Your task to perform on an android device: Show me productivity apps on the Play Store Image 0: 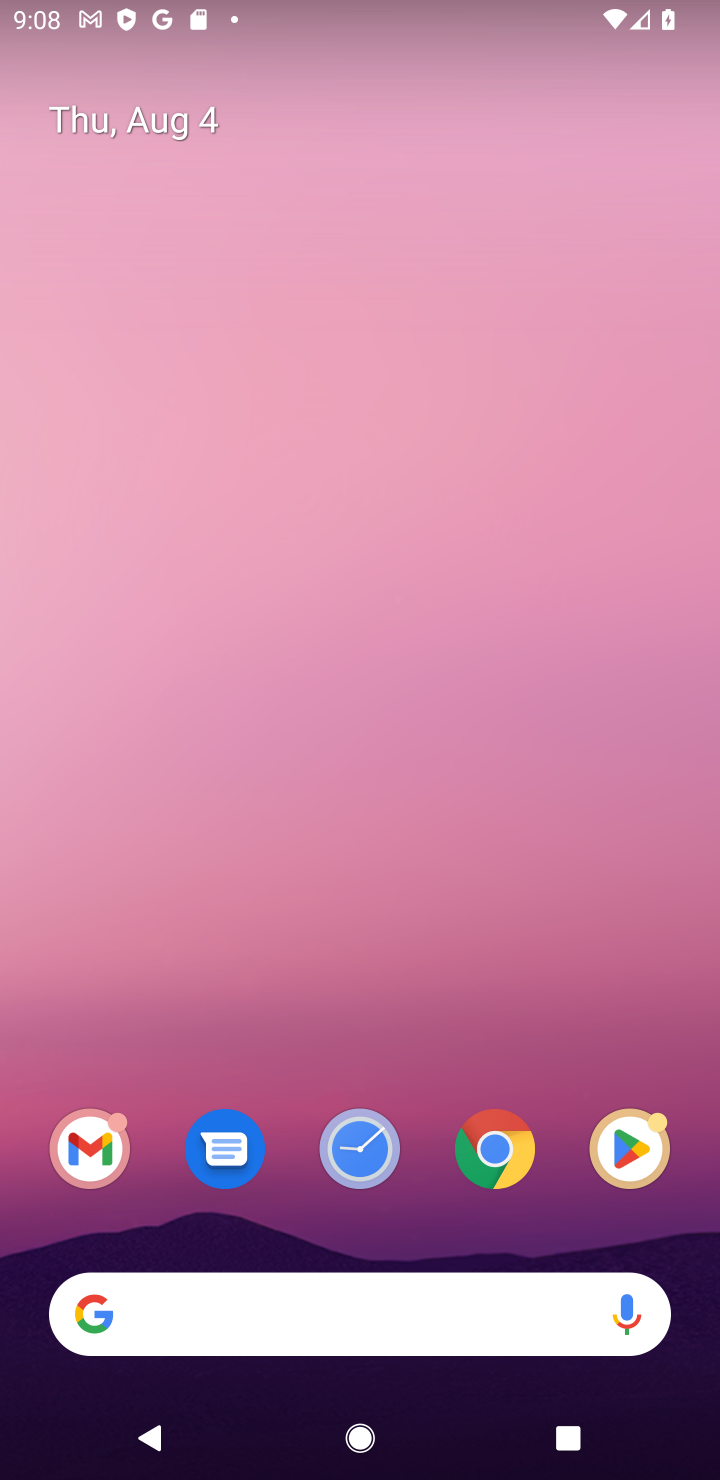
Step 0: drag from (690, 1250) to (624, 703)
Your task to perform on an android device: Show me productivity apps on the Play Store Image 1: 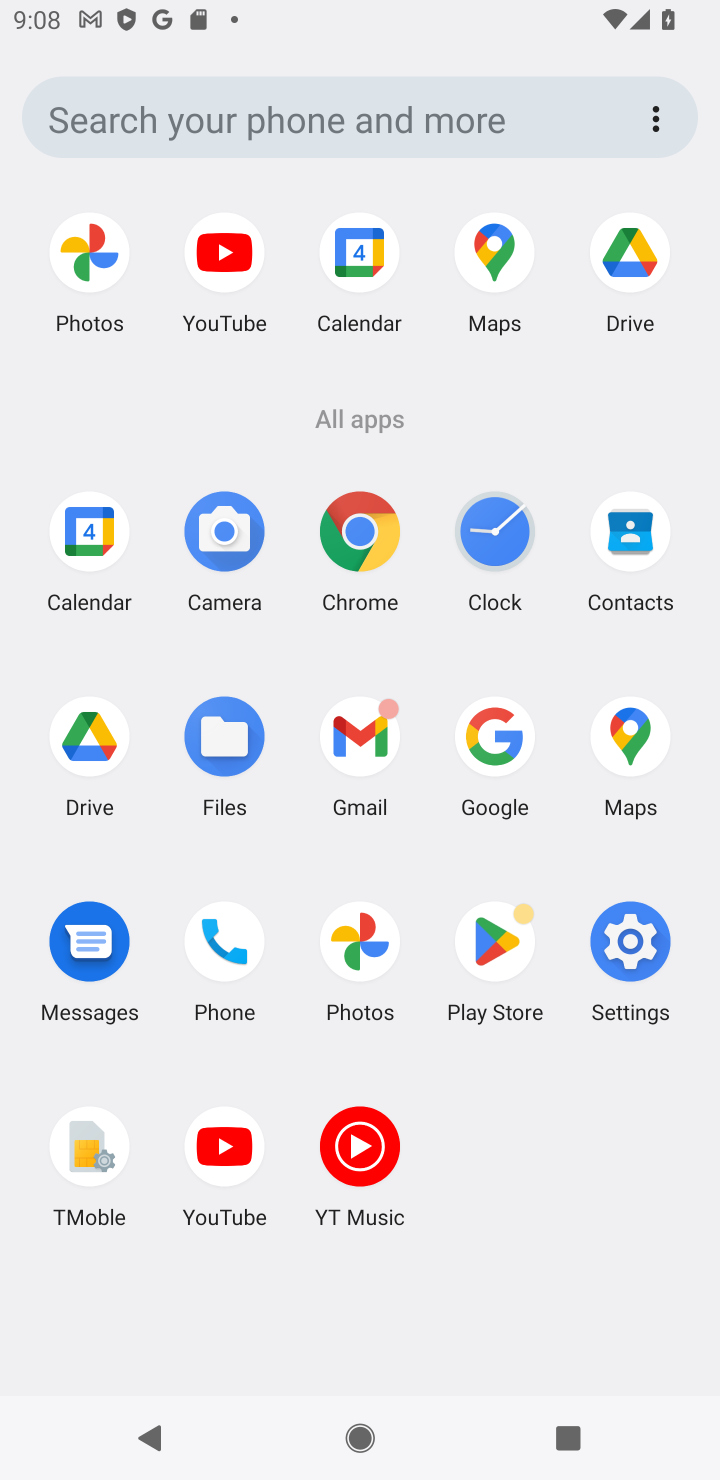
Step 1: click (500, 938)
Your task to perform on an android device: Show me productivity apps on the Play Store Image 2: 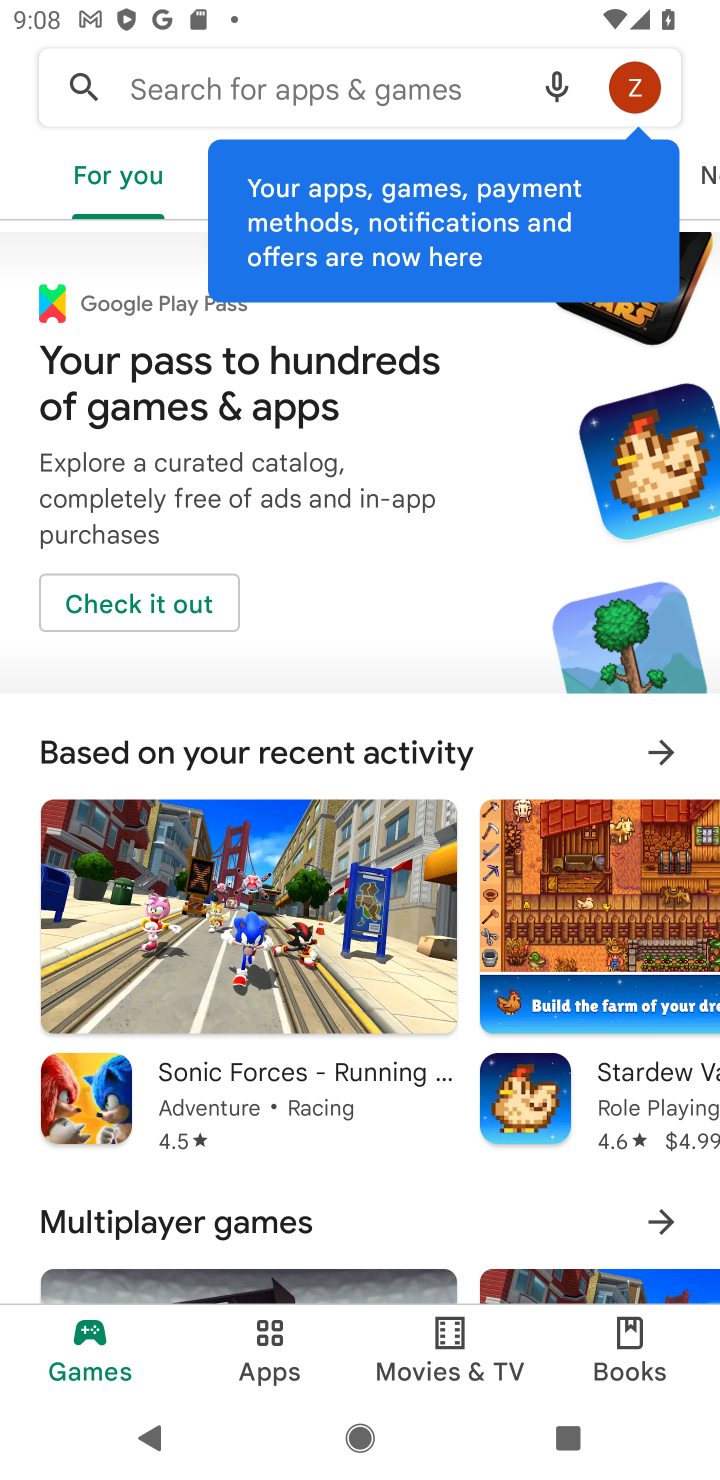
Step 2: click (269, 1337)
Your task to perform on an android device: Show me productivity apps on the Play Store Image 3: 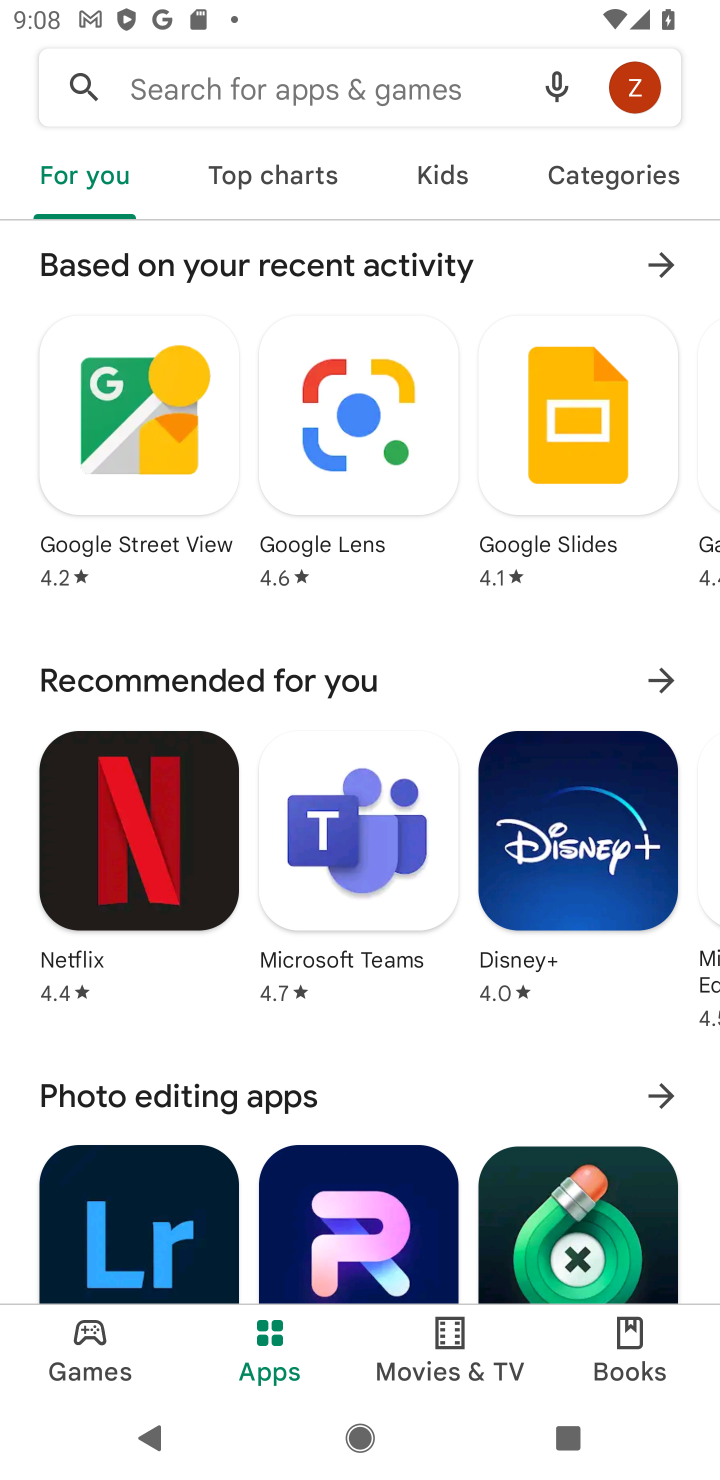
Step 3: click (607, 165)
Your task to perform on an android device: Show me productivity apps on the Play Store Image 4: 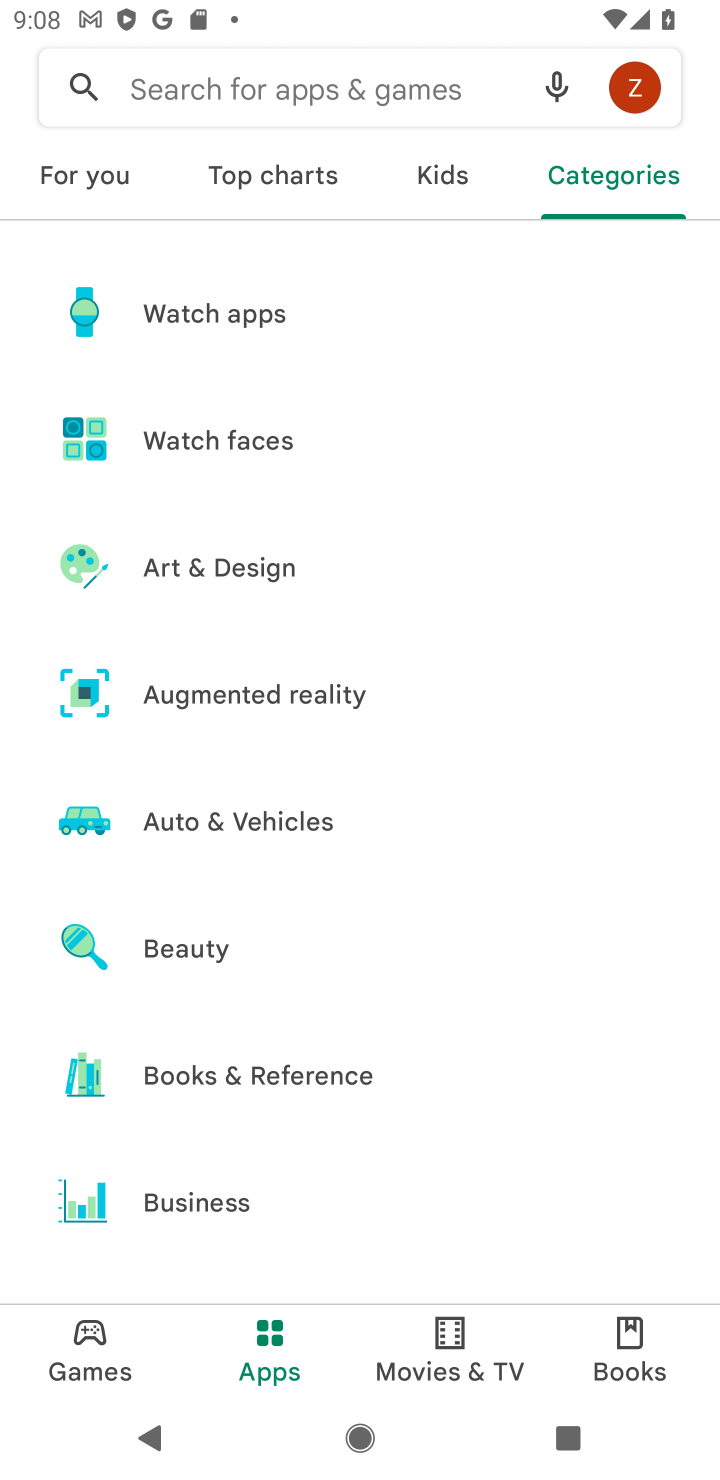
Step 4: drag from (400, 1183) to (404, 433)
Your task to perform on an android device: Show me productivity apps on the Play Store Image 5: 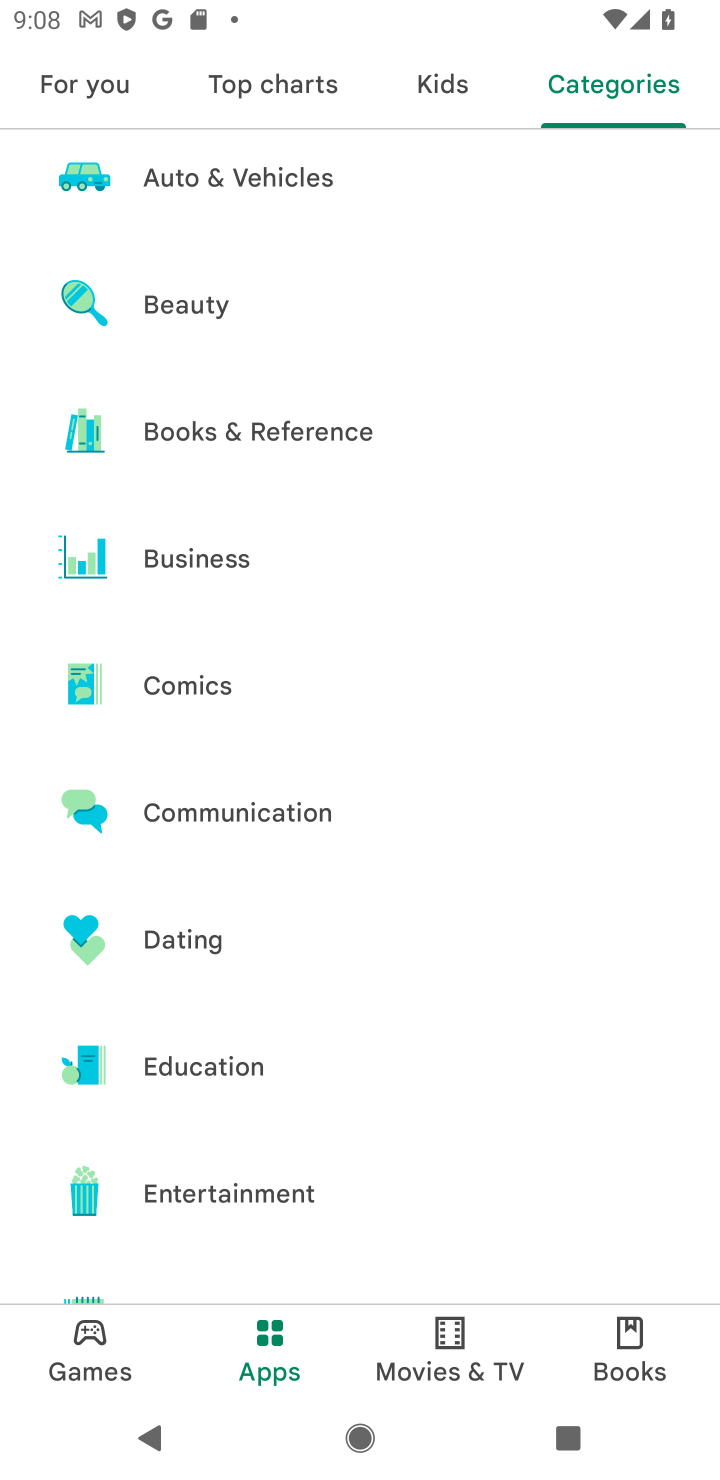
Step 5: drag from (465, 1246) to (473, 398)
Your task to perform on an android device: Show me productivity apps on the Play Store Image 6: 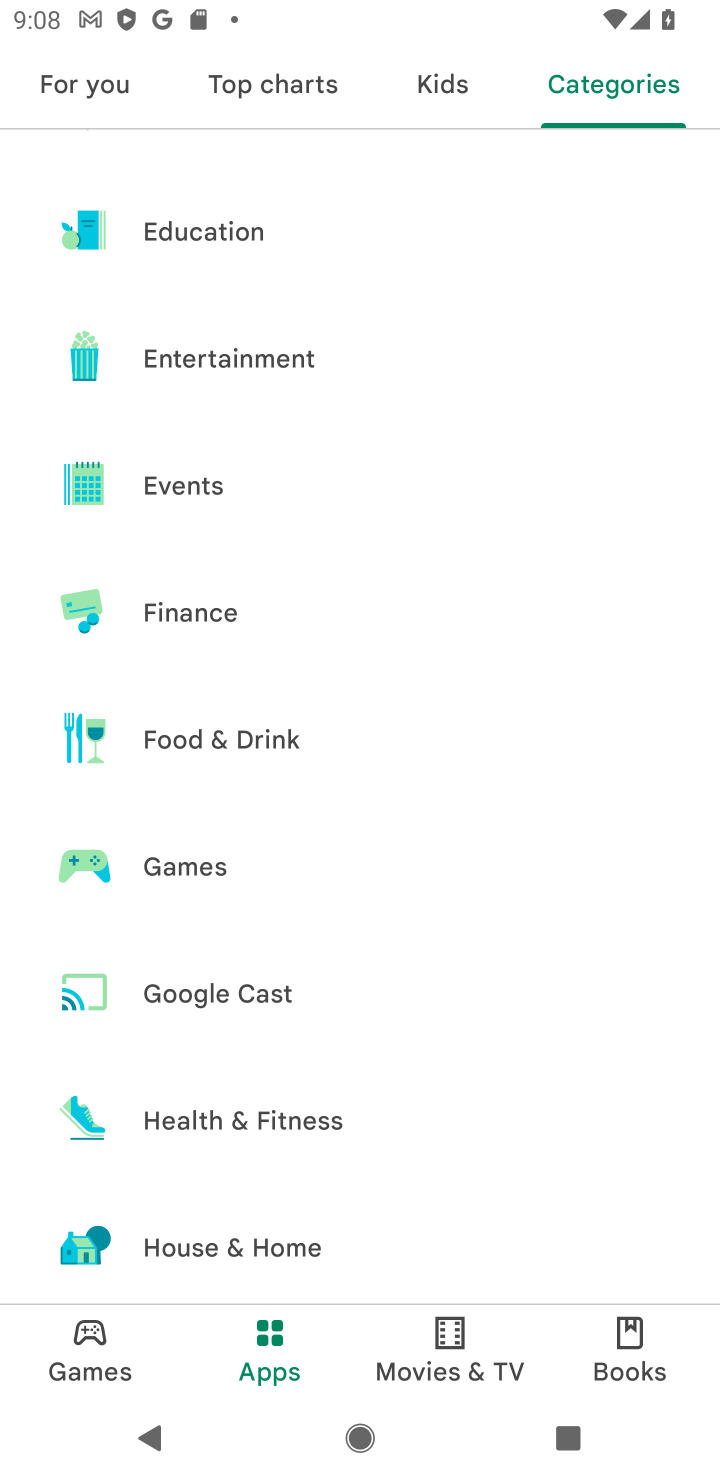
Step 6: drag from (472, 1157) to (450, 339)
Your task to perform on an android device: Show me productivity apps on the Play Store Image 7: 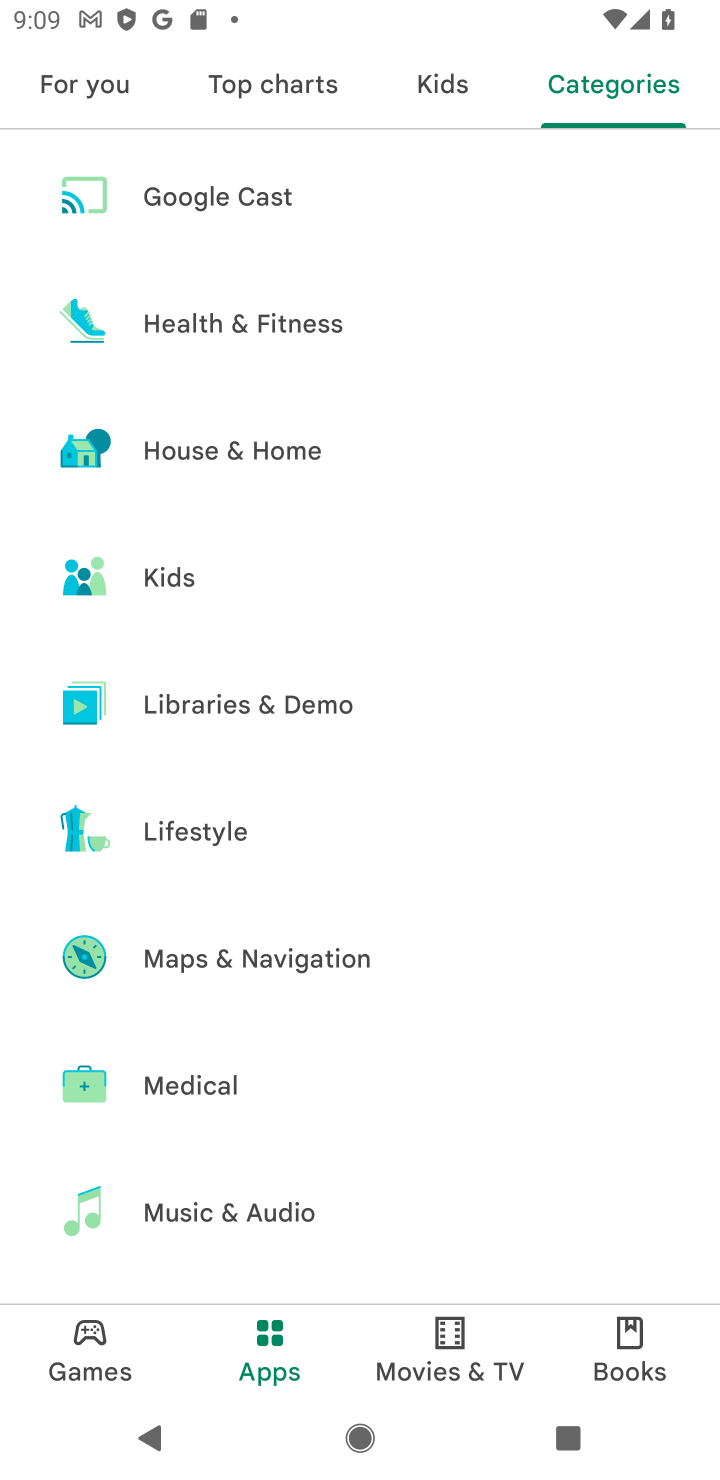
Step 7: drag from (418, 1184) to (394, 250)
Your task to perform on an android device: Show me productivity apps on the Play Store Image 8: 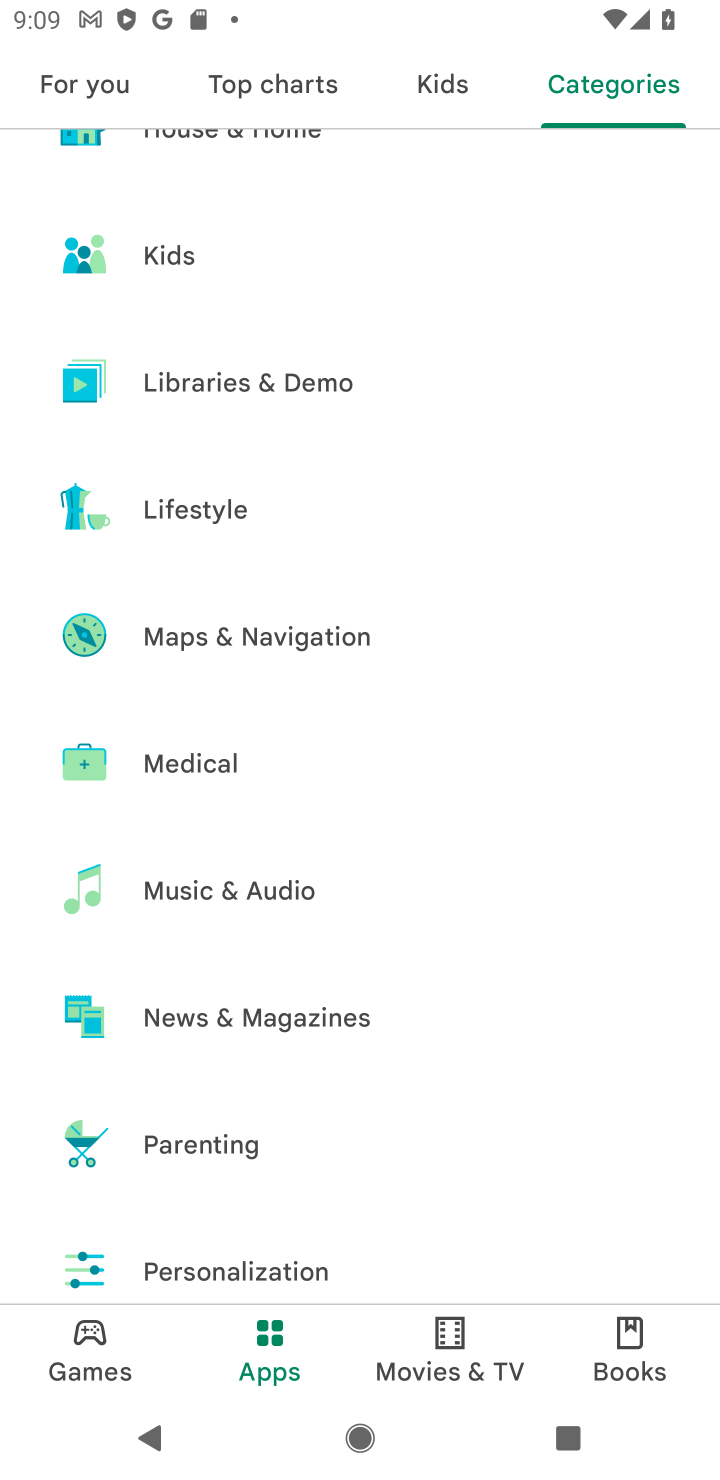
Step 8: drag from (483, 1220) to (462, 219)
Your task to perform on an android device: Show me productivity apps on the Play Store Image 9: 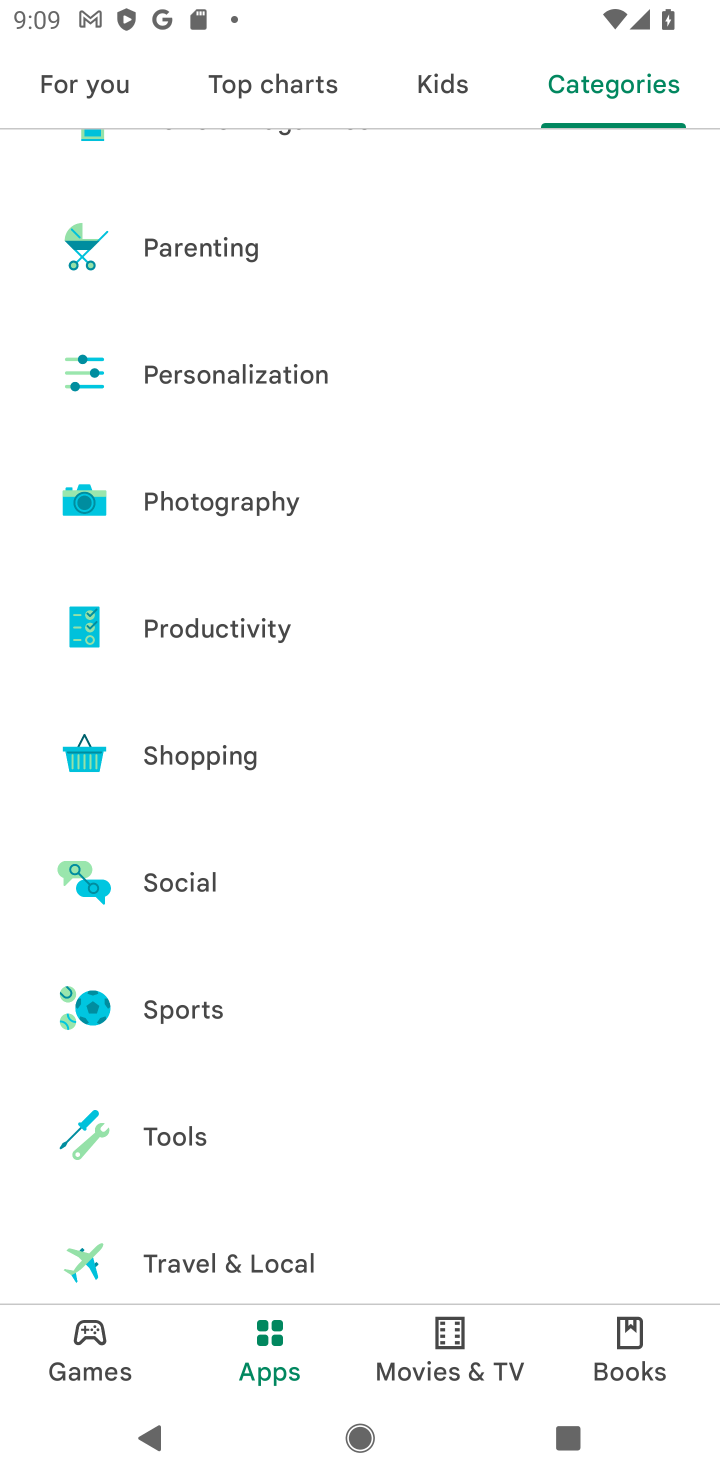
Step 9: click (194, 633)
Your task to perform on an android device: Show me productivity apps on the Play Store Image 10: 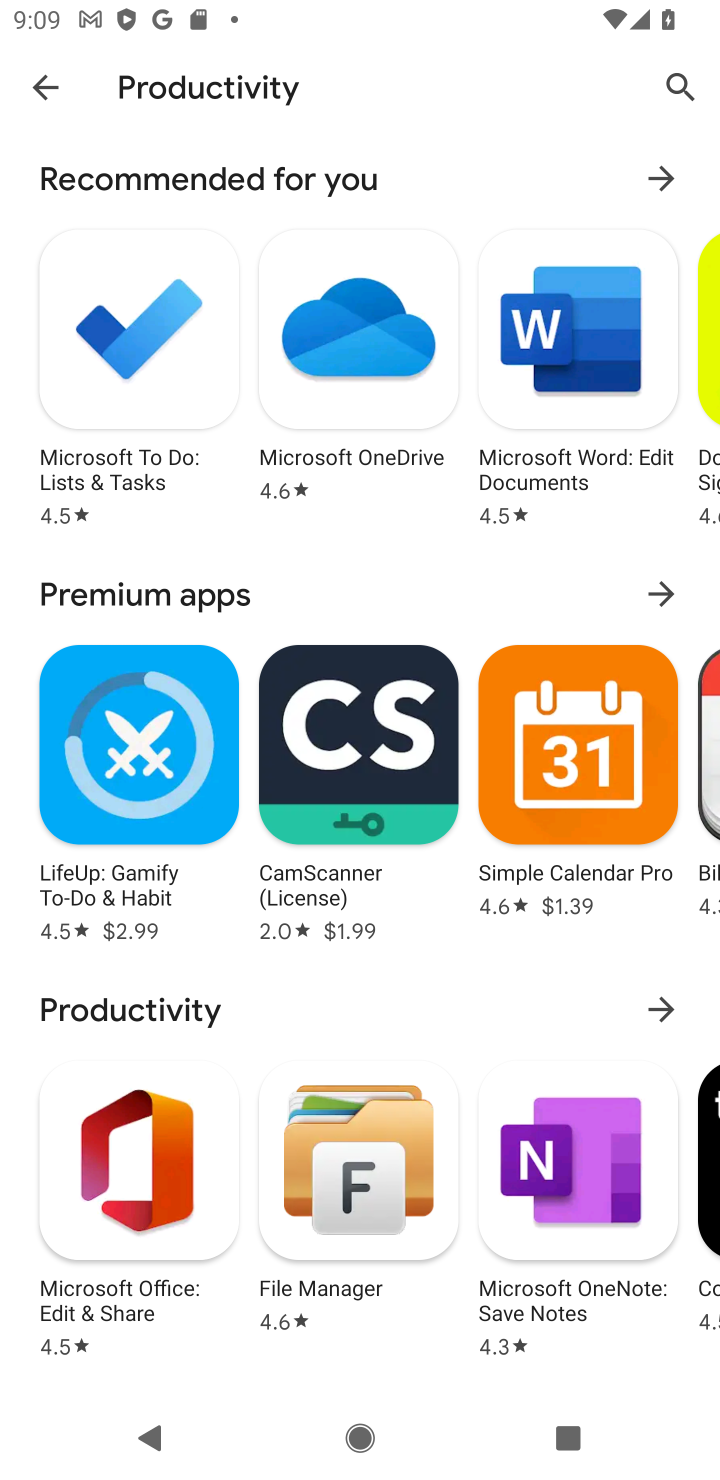
Step 10: click (656, 1007)
Your task to perform on an android device: Show me productivity apps on the Play Store Image 11: 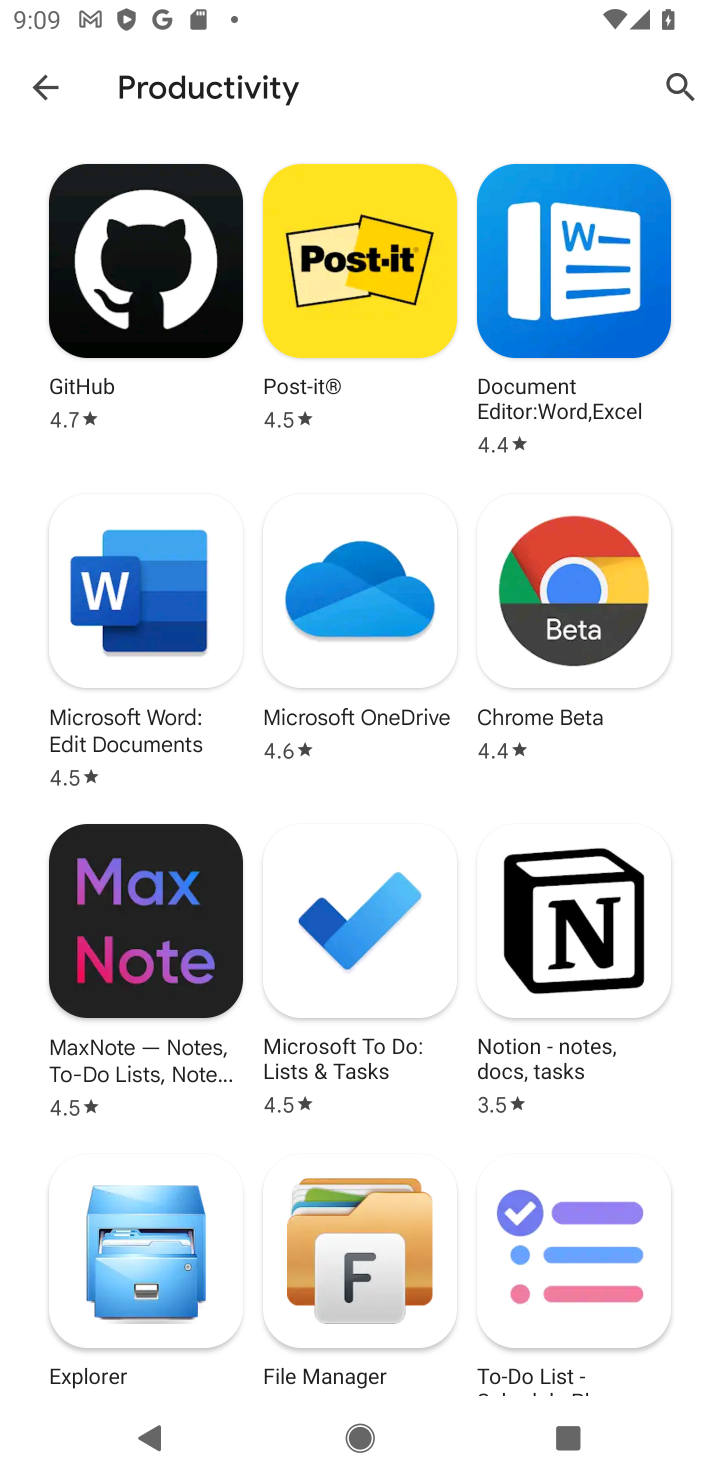
Step 11: task complete